Your task to perform on an android device: toggle priority inbox in the gmail app Image 0: 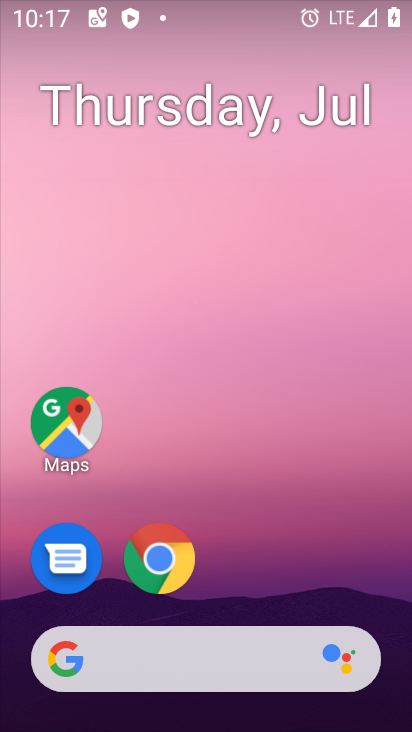
Step 0: drag from (347, 559) to (371, 62)
Your task to perform on an android device: toggle priority inbox in the gmail app Image 1: 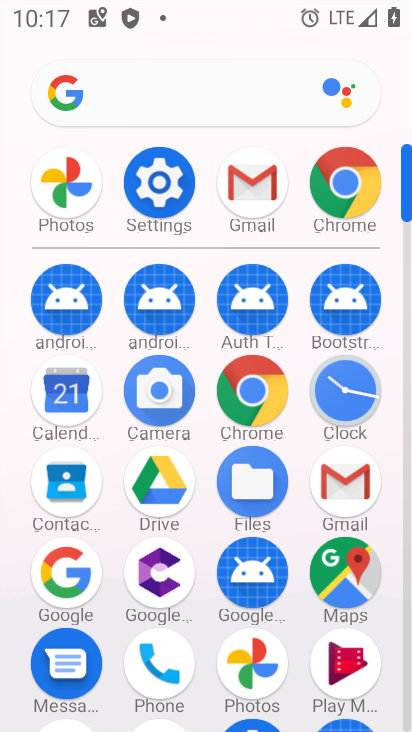
Step 1: click (348, 472)
Your task to perform on an android device: toggle priority inbox in the gmail app Image 2: 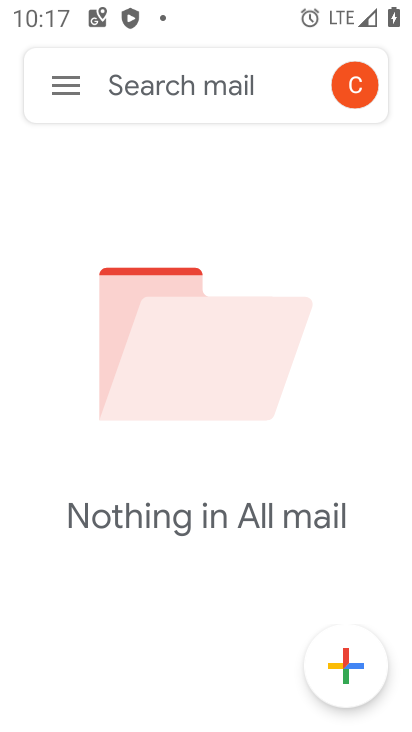
Step 2: click (72, 90)
Your task to perform on an android device: toggle priority inbox in the gmail app Image 3: 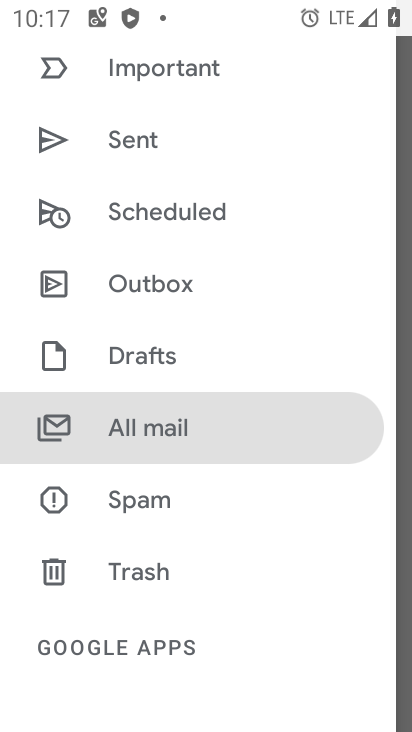
Step 3: drag from (315, 194) to (334, 313)
Your task to perform on an android device: toggle priority inbox in the gmail app Image 4: 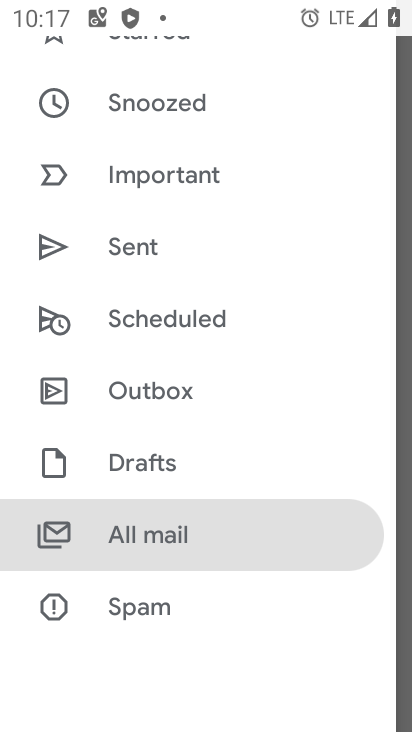
Step 4: drag from (330, 154) to (333, 273)
Your task to perform on an android device: toggle priority inbox in the gmail app Image 5: 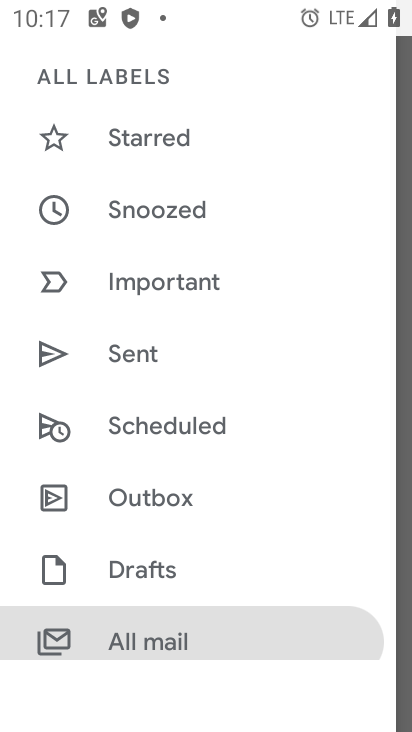
Step 5: drag from (321, 123) to (337, 266)
Your task to perform on an android device: toggle priority inbox in the gmail app Image 6: 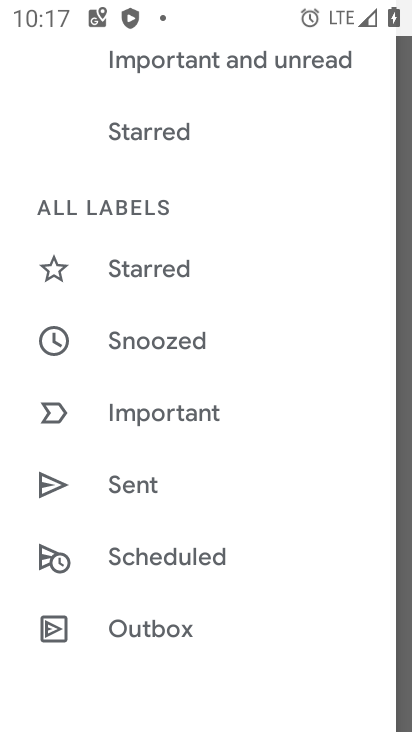
Step 6: drag from (332, 128) to (345, 327)
Your task to perform on an android device: toggle priority inbox in the gmail app Image 7: 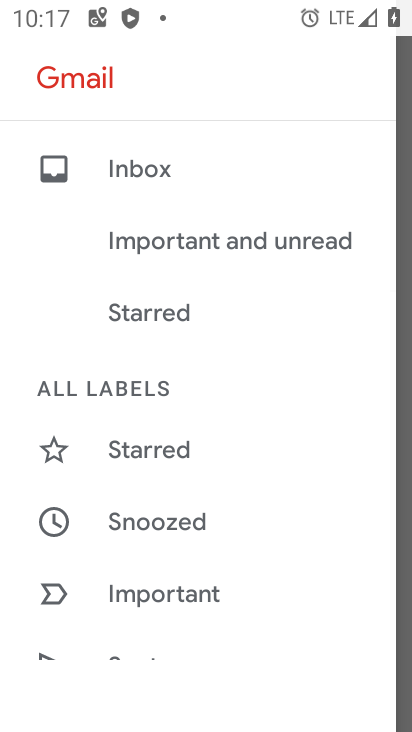
Step 7: drag from (325, 401) to (327, 291)
Your task to perform on an android device: toggle priority inbox in the gmail app Image 8: 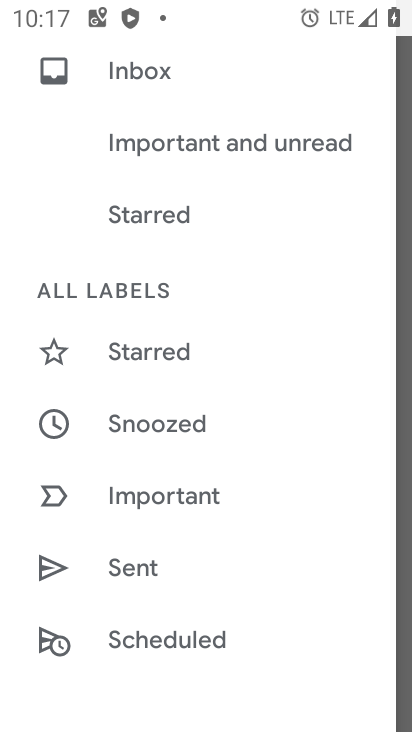
Step 8: drag from (297, 384) to (299, 290)
Your task to perform on an android device: toggle priority inbox in the gmail app Image 9: 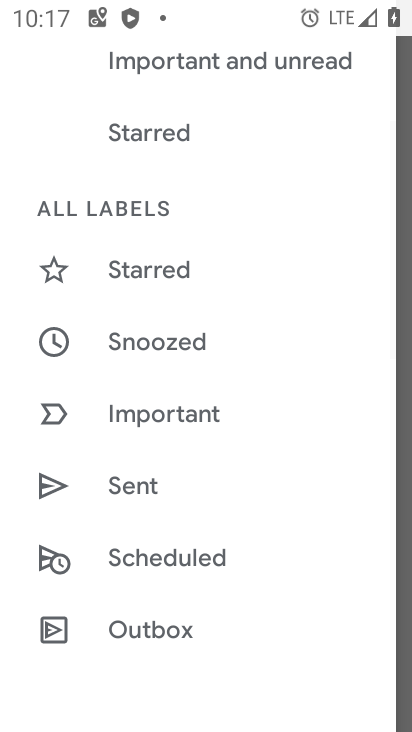
Step 9: drag from (300, 394) to (297, 284)
Your task to perform on an android device: toggle priority inbox in the gmail app Image 10: 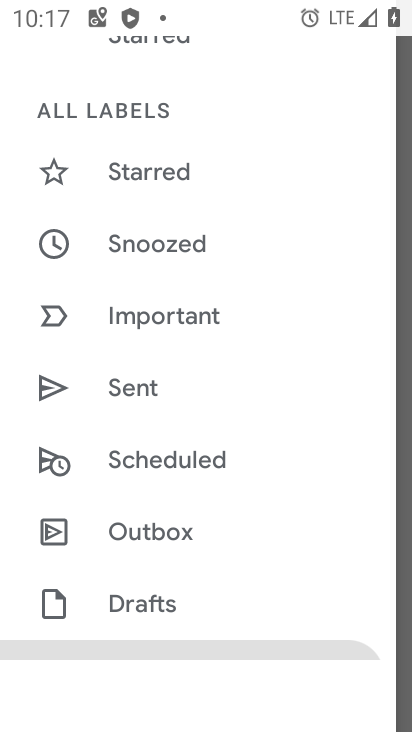
Step 10: drag from (289, 397) to (286, 296)
Your task to perform on an android device: toggle priority inbox in the gmail app Image 11: 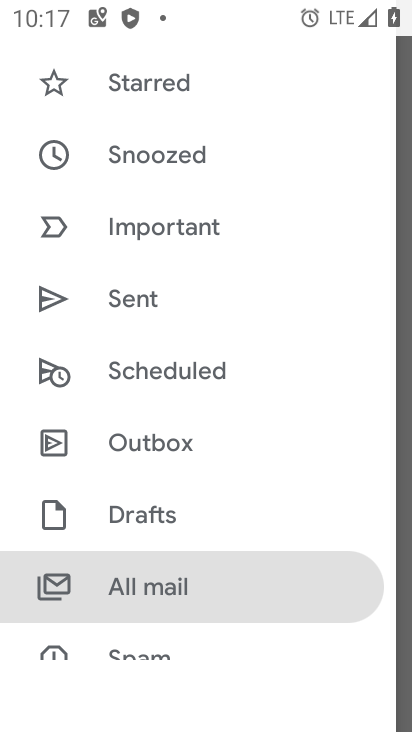
Step 11: drag from (289, 440) to (289, 337)
Your task to perform on an android device: toggle priority inbox in the gmail app Image 12: 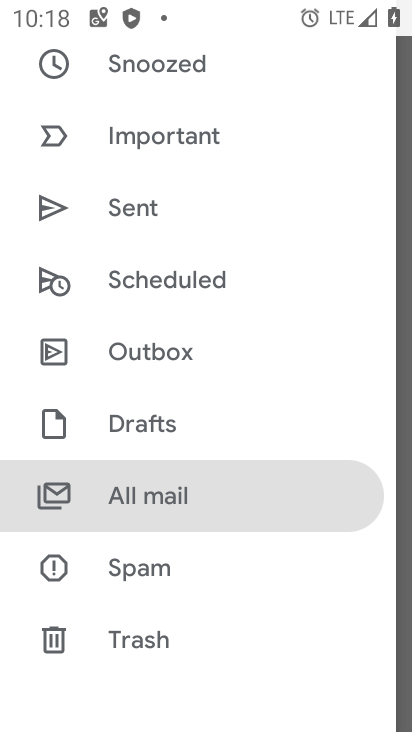
Step 12: drag from (292, 471) to (318, 317)
Your task to perform on an android device: toggle priority inbox in the gmail app Image 13: 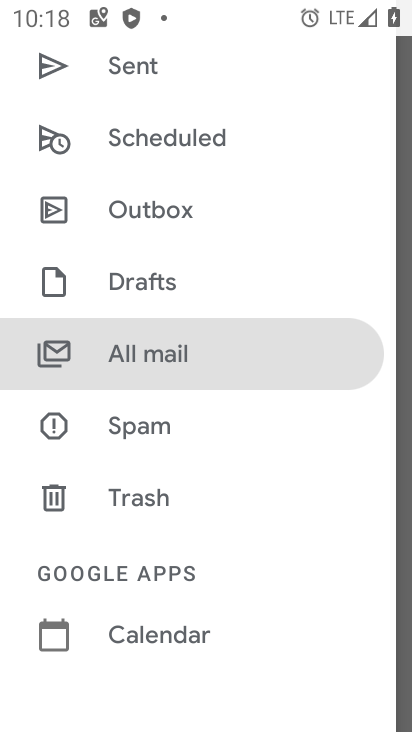
Step 13: drag from (295, 532) to (298, 287)
Your task to perform on an android device: toggle priority inbox in the gmail app Image 14: 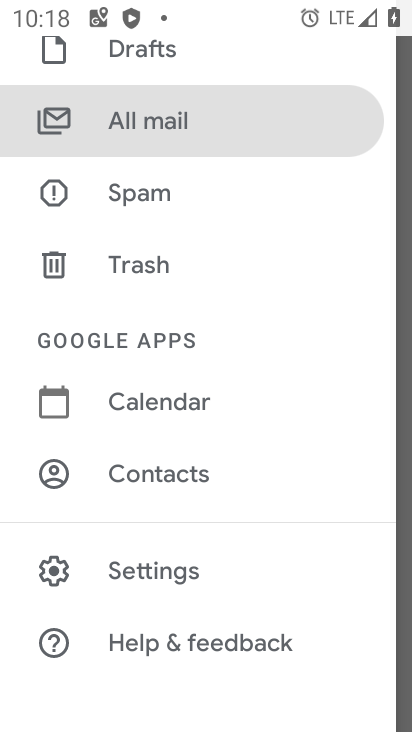
Step 14: drag from (293, 560) to (292, 379)
Your task to perform on an android device: toggle priority inbox in the gmail app Image 15: 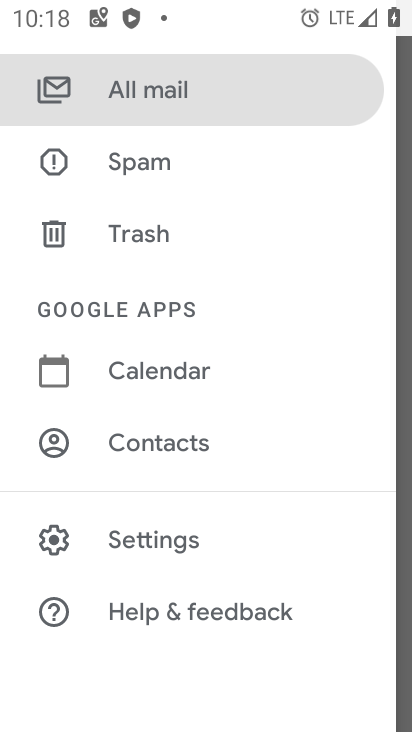
Step 15: click (250, 546)
Your task to perform on an android device: toggle priority inbox in the gmail app Image 16: 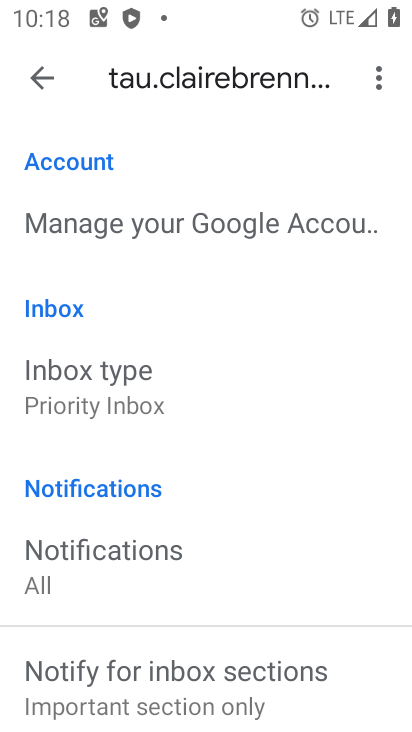
Step 16: task complete